Your task to perform on an android device: What is the recent news? Image 0: 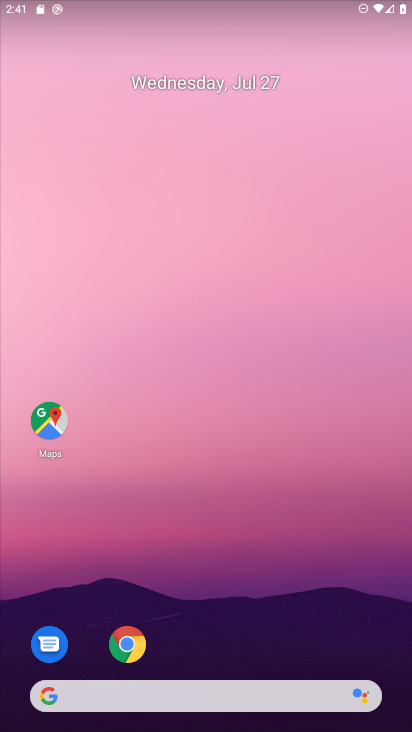
Step 0: click (200, 697)
Your task to perform on an android device: What is the recent news? Image 1: 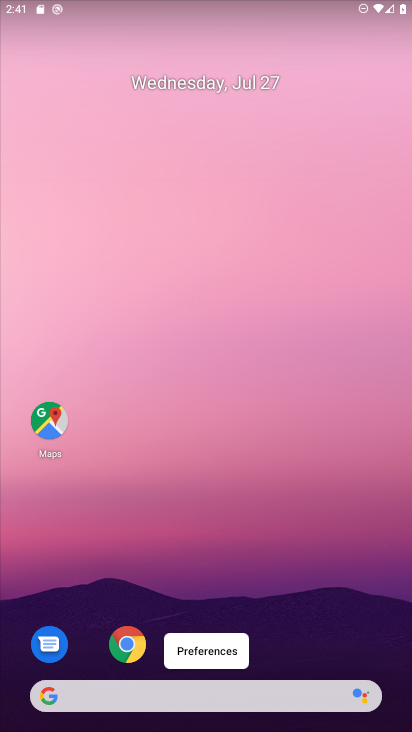
Step 1: click (144, 698)
Your task to perform on an android device: What is the recent news? Image 2: 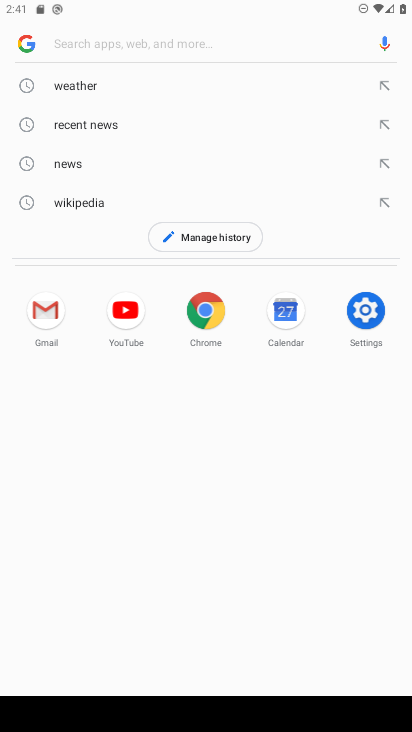
Step 2: click (103, 129)
Your task to perform on an android device: What is the recent news? Image 3: 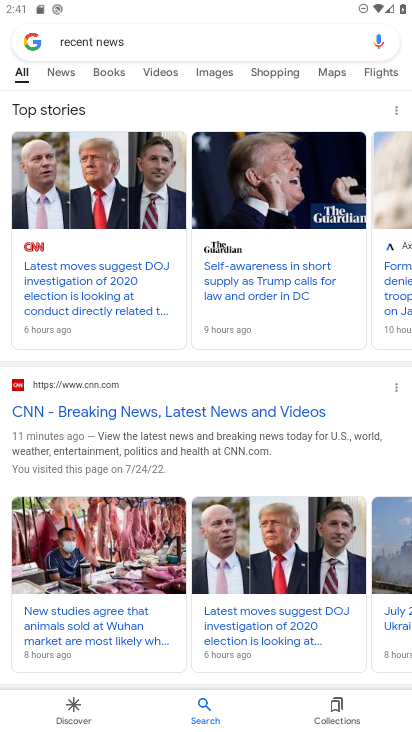
Step 3: task complete